Your task to perform on an android device: check out phone information Image 0: 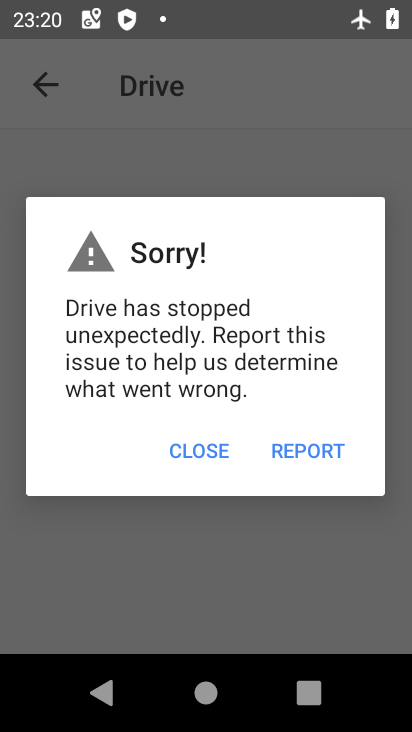
Step 0: press home button
Your task to perform on an android device: check out phone information Image 1: 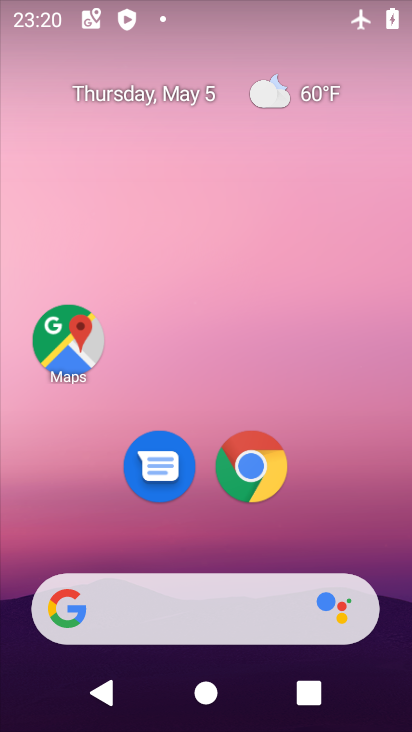
Step 1: drag from (168, 565) to (243, 195)
Your task to perform on an android device: check out phone information Image 2: 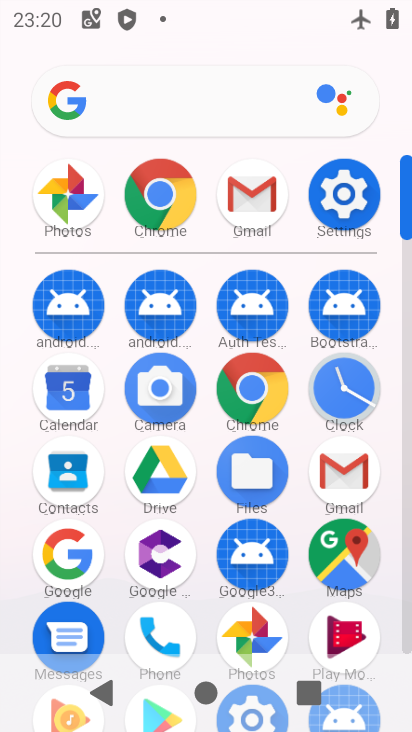
Step 2: click (162, 634)
Your task to perform on an android device: check out phone information Image 3: 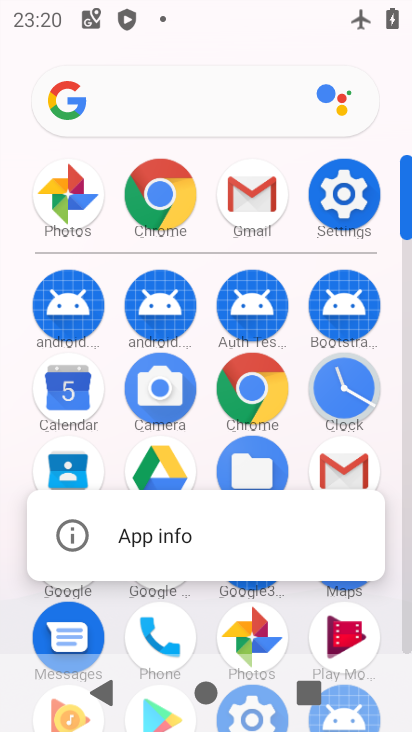
Step 3: click (164, 545)
Your task to perform on an android device: check out phone information Image 4: 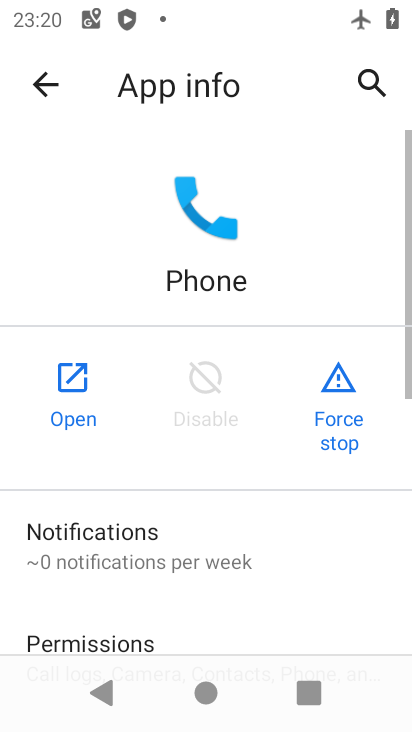
Step 4: drag from (211, 641) to (288, 279)
Your task to perform on an android device: check out phone information Image 5: 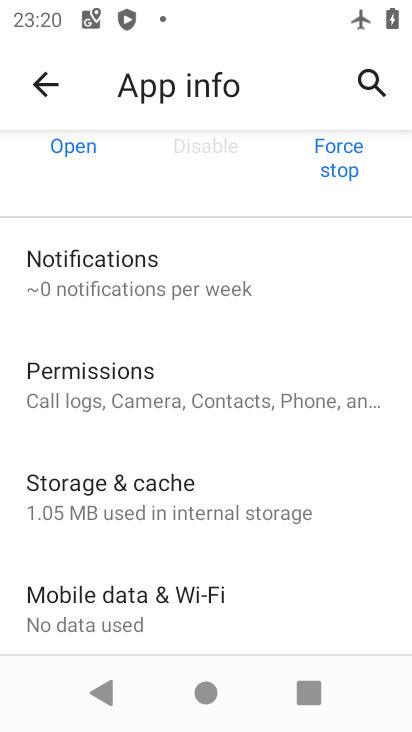
Step 5: drag from (260, 621) to (271, 241)
Your task to perform on an android device: check out phone information Image 6: 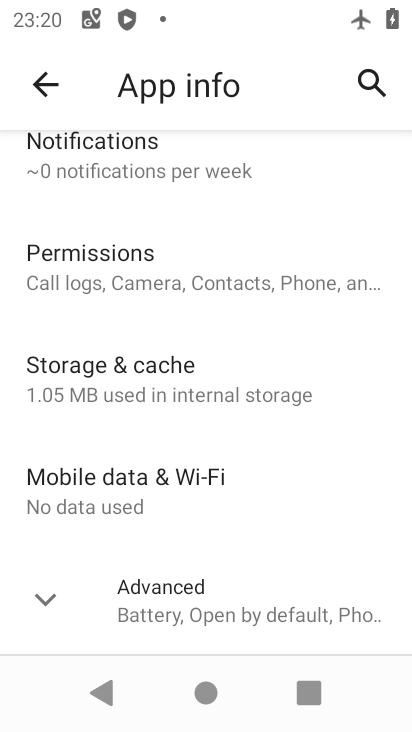
Step 6: click (212, 604)
Your task to perform on an android device: check out phone information Image 7: 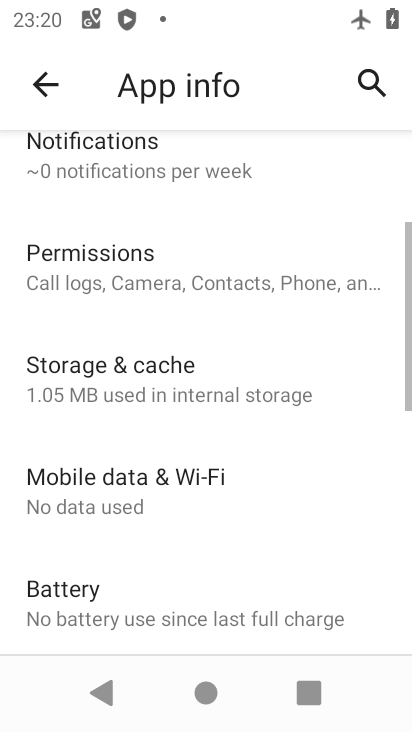
Step 7: task complete